Your task to perform on an android device: change text size in settings app Image 0: 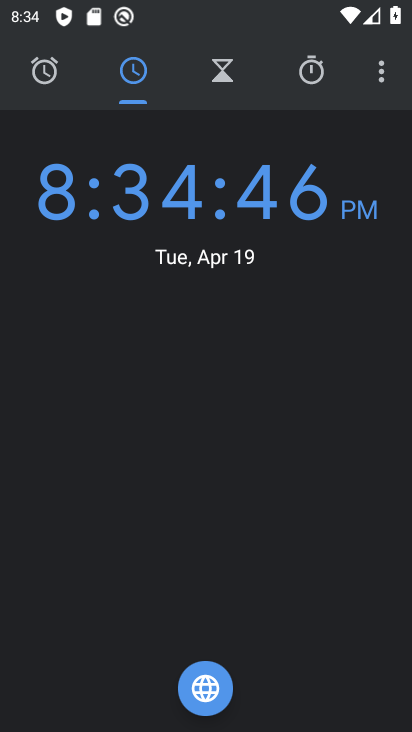
Step 0: press home button
Your task to perform on an android device: change text size in settings app Image 1: 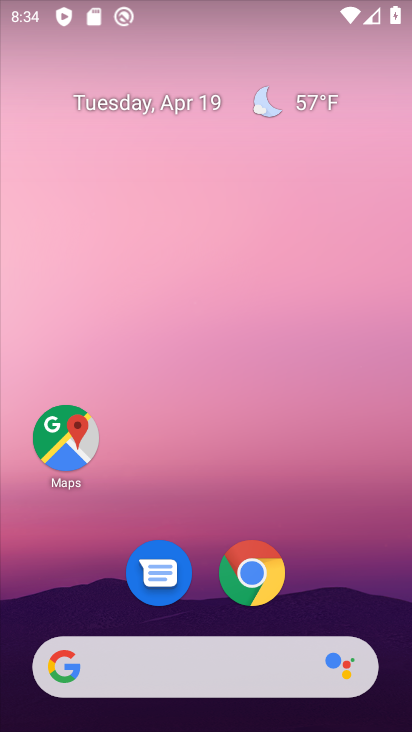
Step 1: drag from (319, 601) to (348, 103)
Your task to perform on an android device: change text size in settings app Image 2: 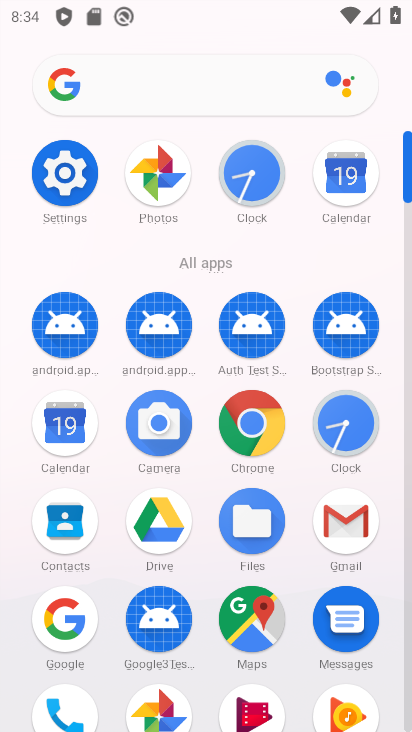
Step 2: click (73, 187)
Your task to perform on an android device: change text size in settings app Image 3: 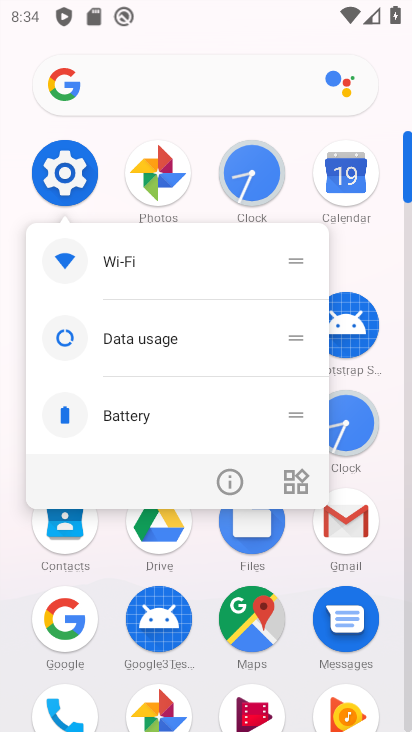
Step 3: click (74, 190)
Your task to perform on an android device: change text size in settings app Image 4: 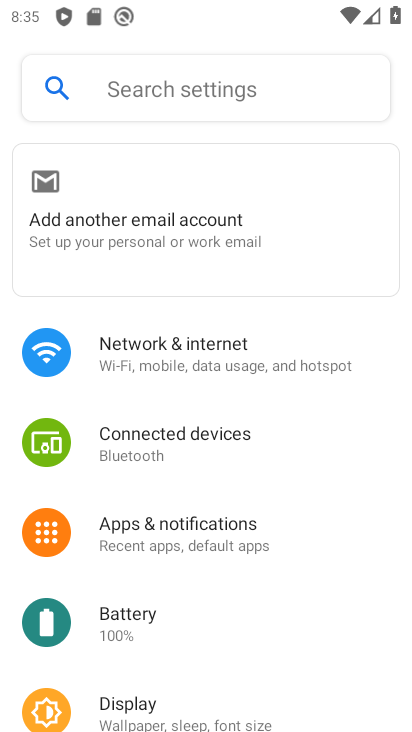
Step 4: click (149, 714)
Your task to perform on an android device: change text size in settings app Image 5: 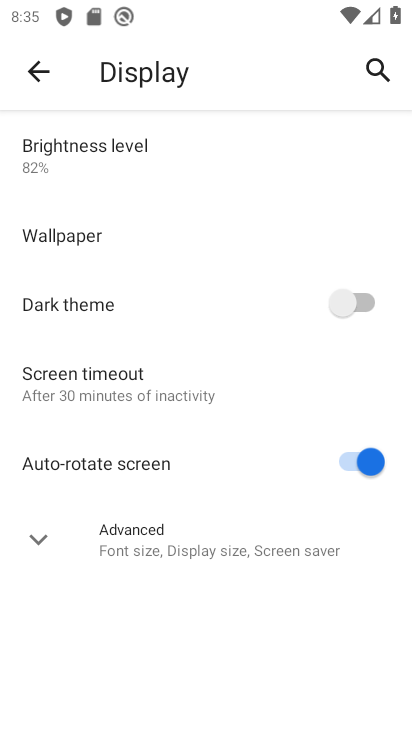
Step 5: click (216, 537)
Your task to perform on an android device: change text size in settings app Image 6: 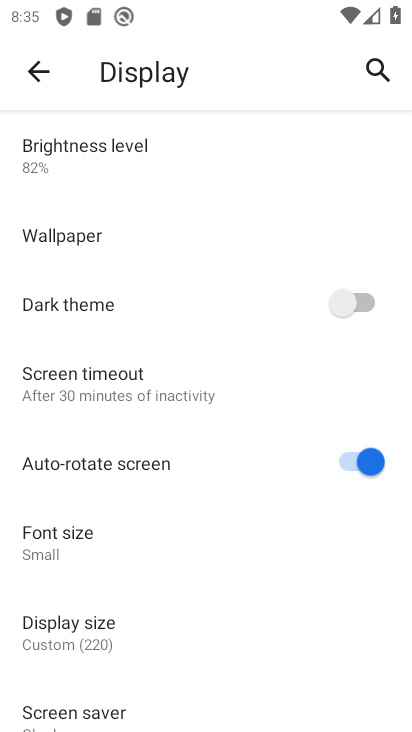
Step 6: click (69, 543)
Your task to perform on an android device: change text size in settings app Image 7: 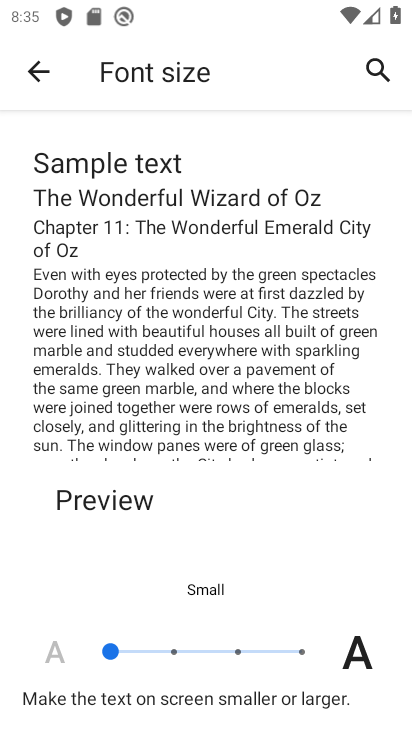
Step 7: click (174, 656)
Your task to perform on an android device: change text size in settings app Image 8: 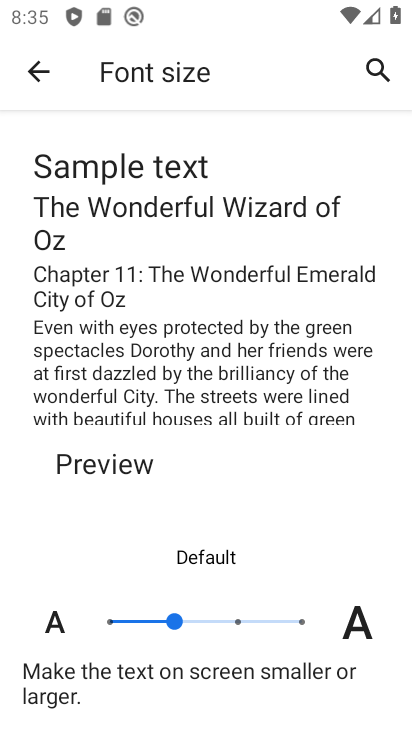
Step 8: task complete